Your task to perform on an android device: Go to internet settings Image 0: 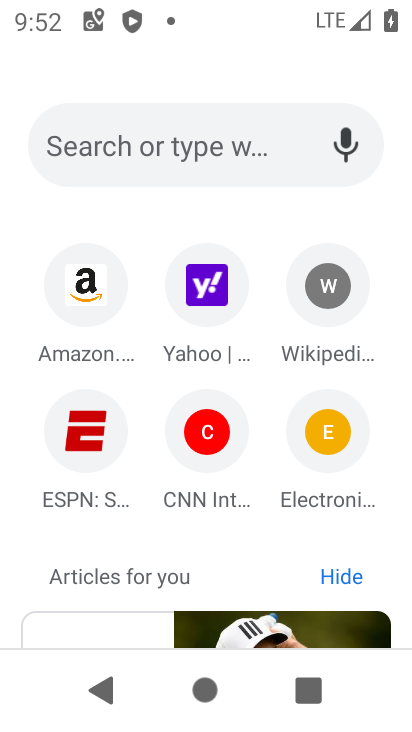
Step 0: press home button
Your task to perform on an android device: Go to internet settings Image 1: 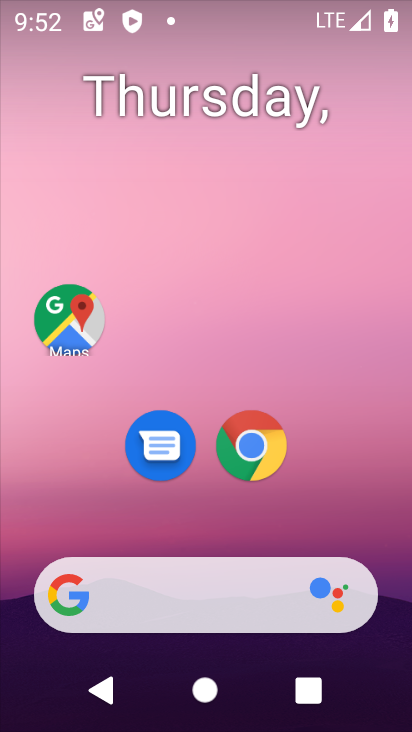
Step 1: drag from (219, 560) to (238, 119)
Your task to perform on an android device: Go to internet settings Image 2: 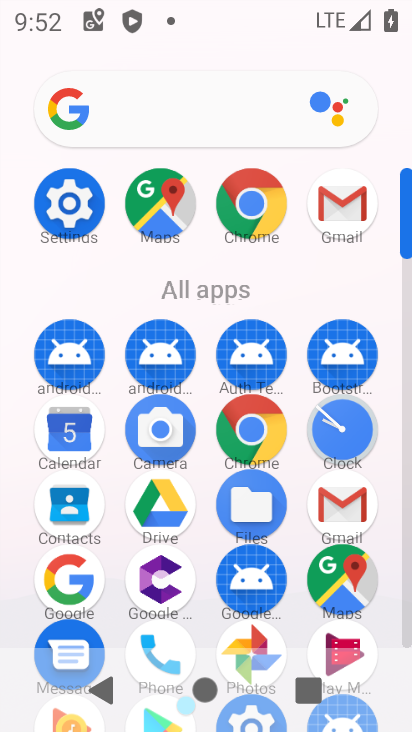
Step 2: click (83, 203)
Your task to perform on an android device: Go to internet settings Image 3: 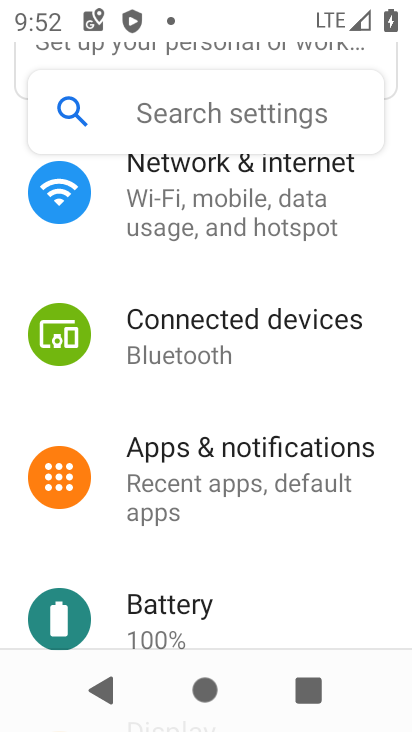
Step 3: click (208, 190)
Your task to perform on an android device: Go to internet settings Image 4: 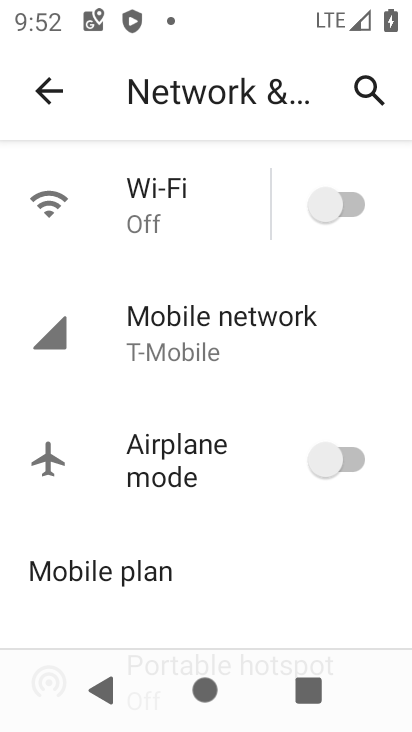
Step 4: click (190, 324)
Your task to perform on an android device: Go to internet settings Image 5: 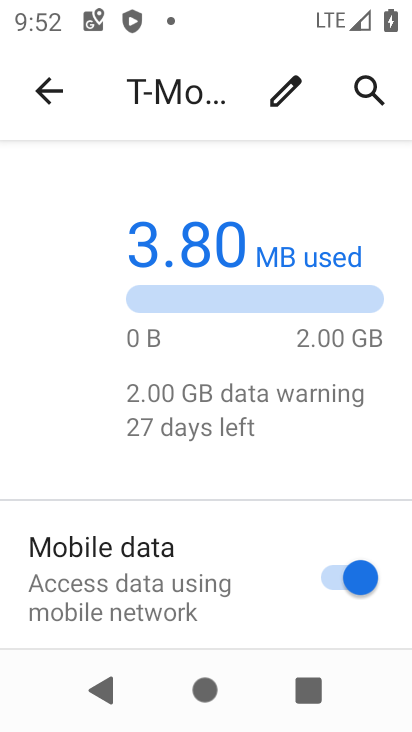
Step 5: task complete